Your task to perform on an android device: turn off smart reply in the gmail app Image 0: 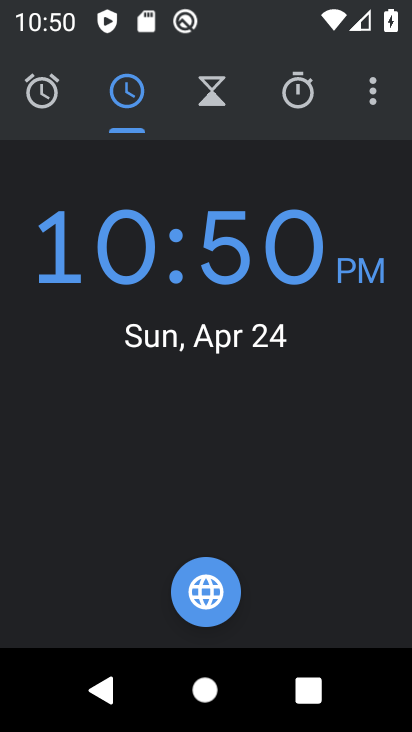
Step 0: press home button
Your task to perform on an android device: turn off smart reply in the gmail app Image 1: 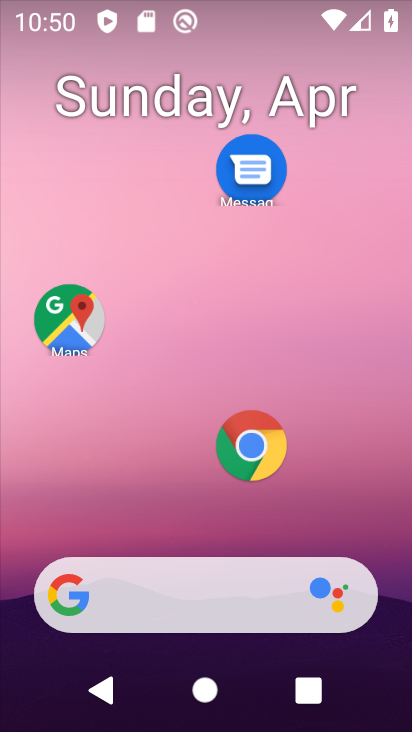
Step 1: drag from (169, 605) to (287, 174)
Your task to perform on an android device: turn off smart reply in the gmail app Image 2: 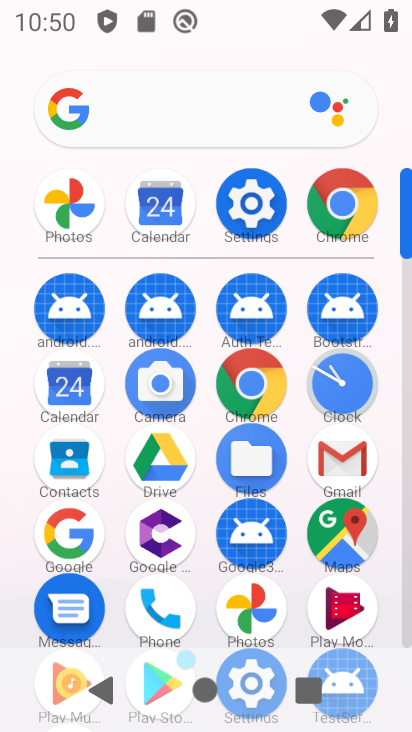
Step 2: click (336, 462)
Your task to perform on an android device: turn off smart reply in the gmail app Image 3: 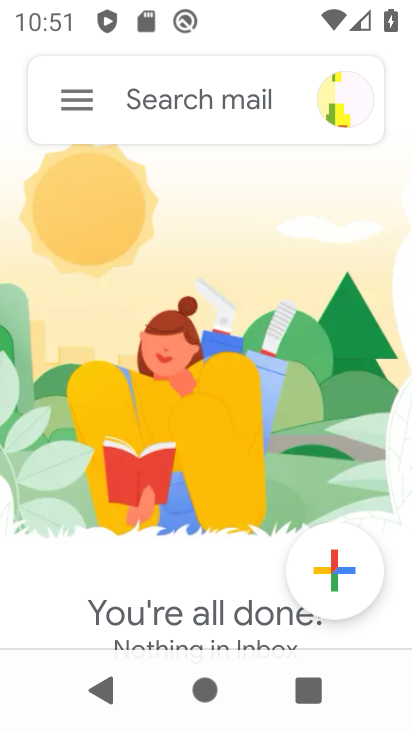
Step 3: click (72, 99)
Your task to perform on an android device: turn off smart reply in the gmail app Image 4: 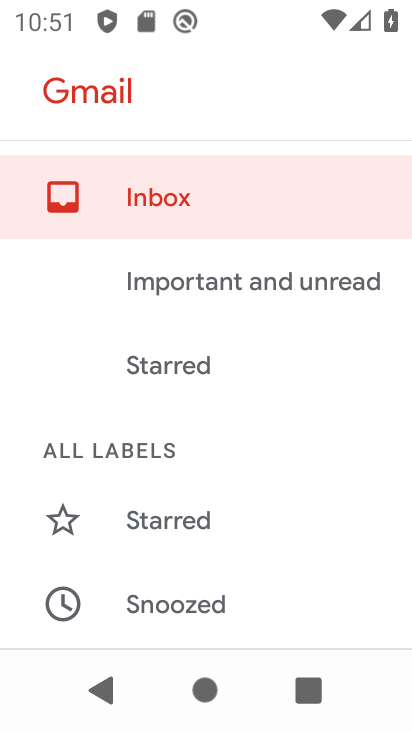
Step 4: drag from (234, 528) to (394, 4)
Your task to perform on an android device: turn off smart reply in the gmail app Image 5: 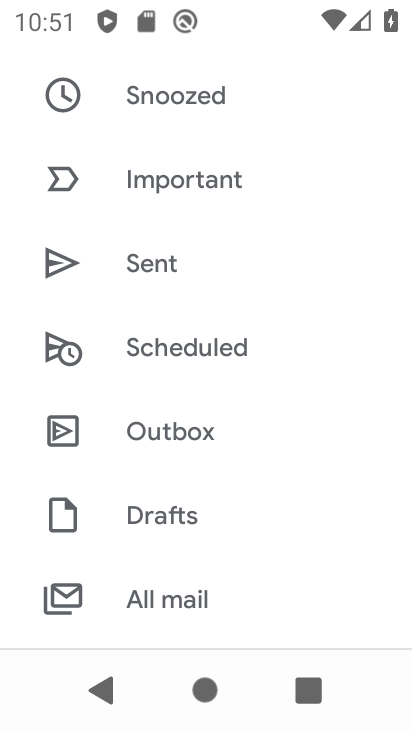
Step 5: drag from (210, 600) to (374, 109)
Your task to perform on an android device: turn off smart reply in the gmail app Image 6: 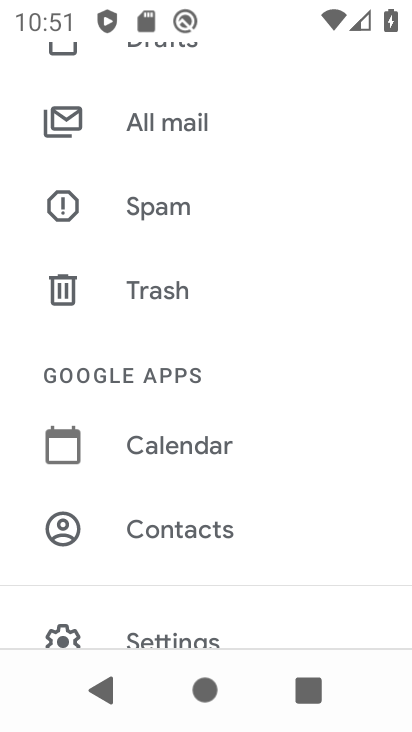
Step 6: drag from (189, 569) to (326, 122)
Your task to perform on an android device: turn off smart reply in the gmail app Image 7: 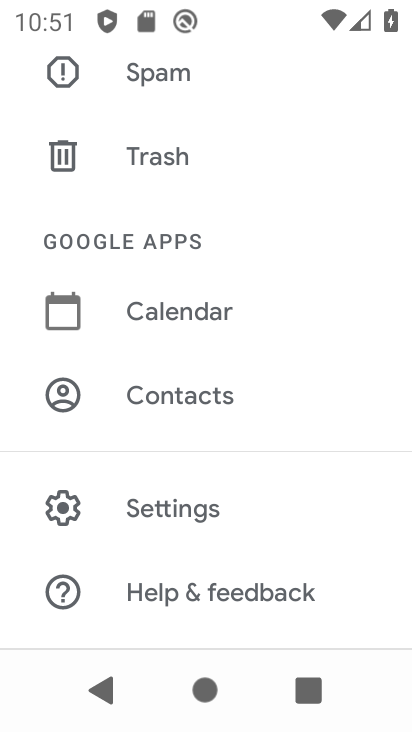
Step 7: click (191, 505)
Your task to perform on an android device: turn off smart reply in the gmail app Image 8: 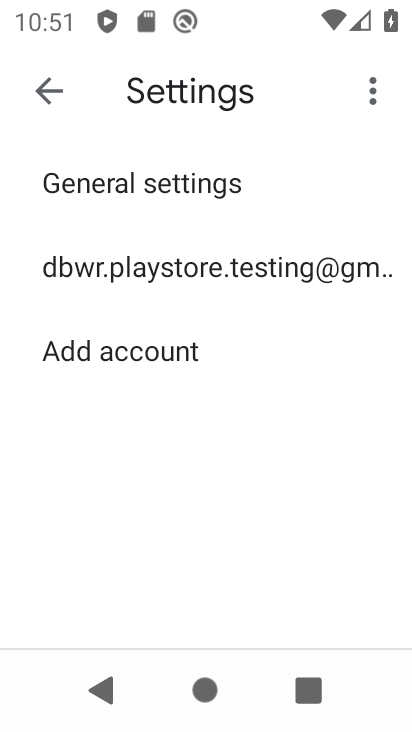
Step 8: click (245, 269)
Your task to perform on an android device: turn off smart reply in the gmail app Image 9: 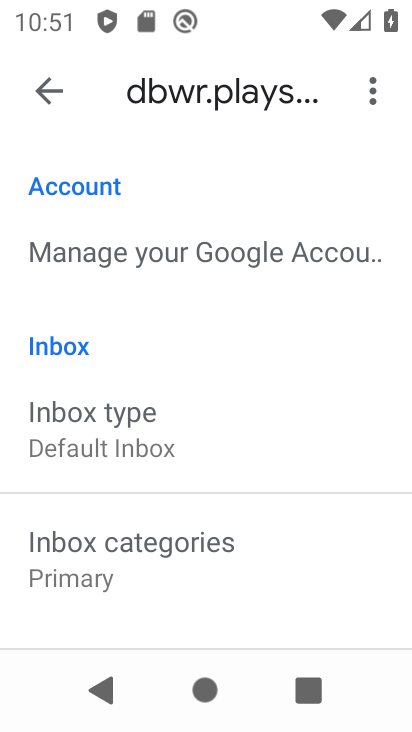
Step 9: drag from (191, 583) to (401, 0)
Your task to perform on an android device: turn off smart reply in the gmail app Image 10: 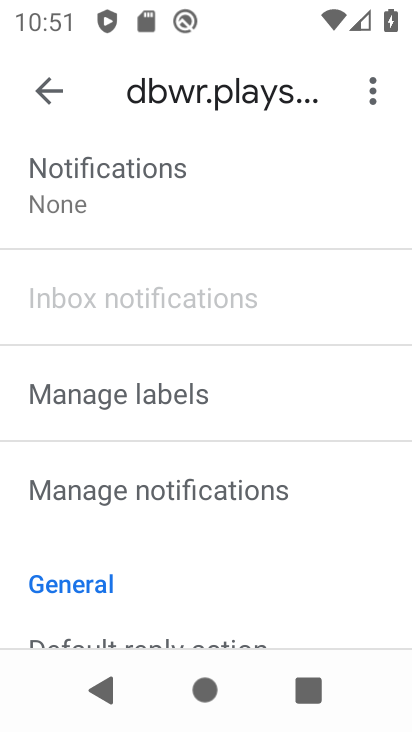
Step 10: drag from (239, 604) to (384, 114)
Your task to perform on an android device: turn off smart reply in the gmail app Image 11: 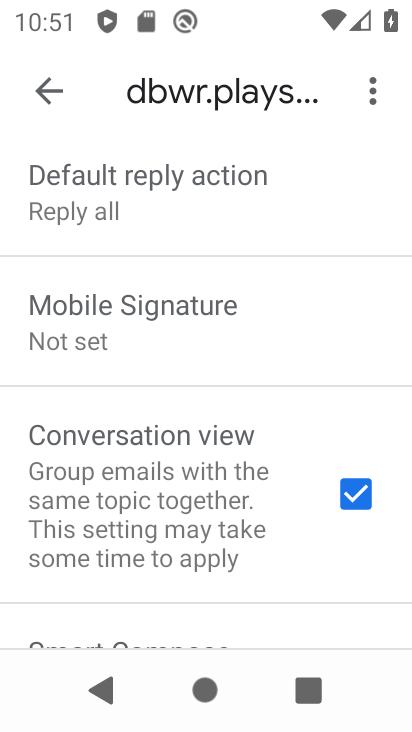
Step 11: drag from (232, 417) to (329, 160)
Your task to perform on an android device: turn off smart reply in the gmail app Image 12: 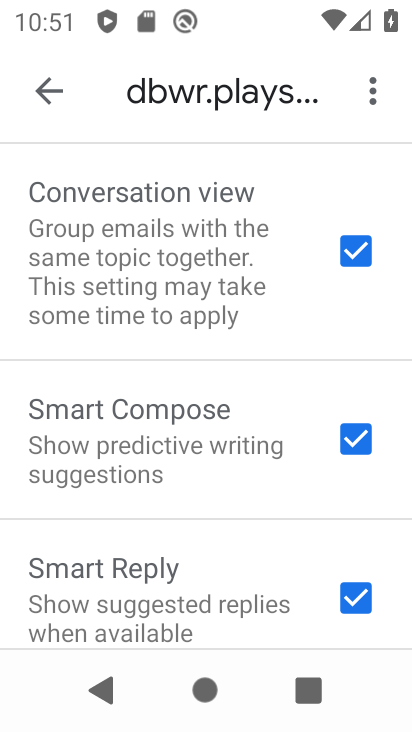
Step 12: click (345, 602)
Your task to perform on an android device: turn off smart reply in the gmail app Image 13: 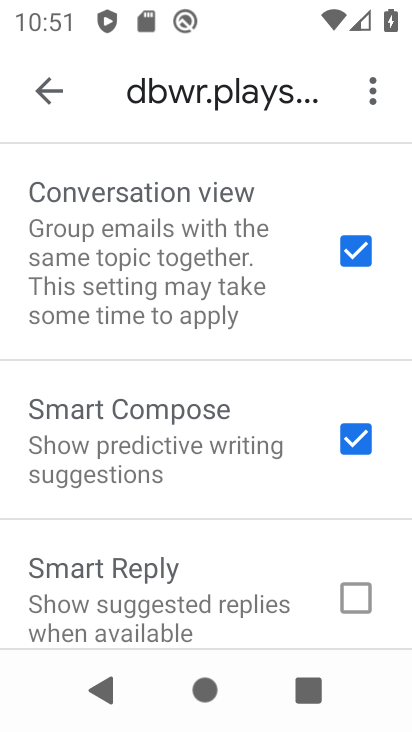
Step 13: task complete